Your task to perform on an android device: Check the weather Image 0: 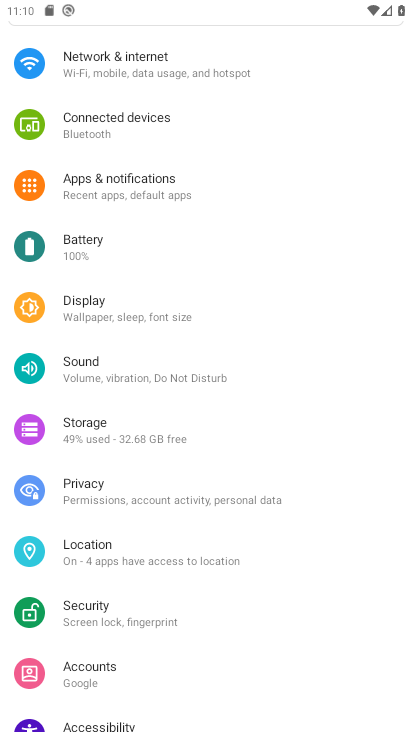
Step 0: press home button
Your task to perform on an android device: Check the weather Image 1: 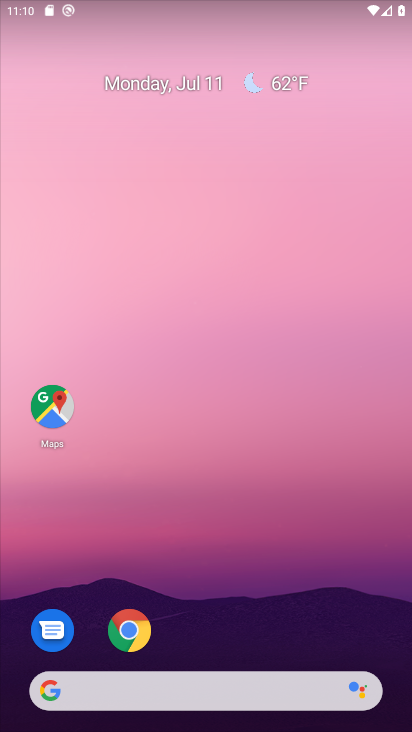
Step 1: click (237, 695)
Your task to perform on an android device: Check the weather Image 2: 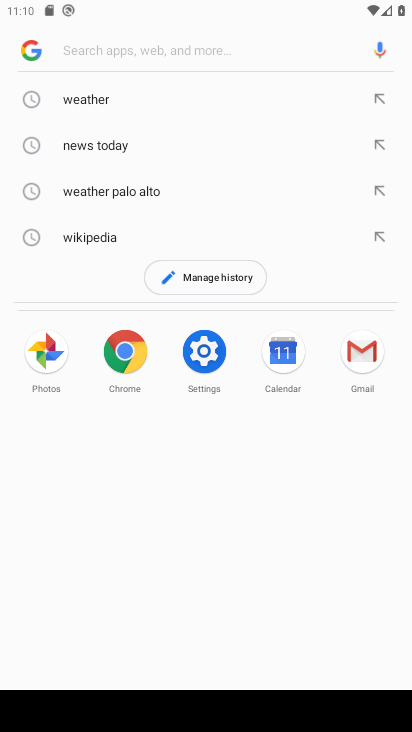
Step 2: click (94, 96)
Your task to perform on an android device: Check the weather Image 3: 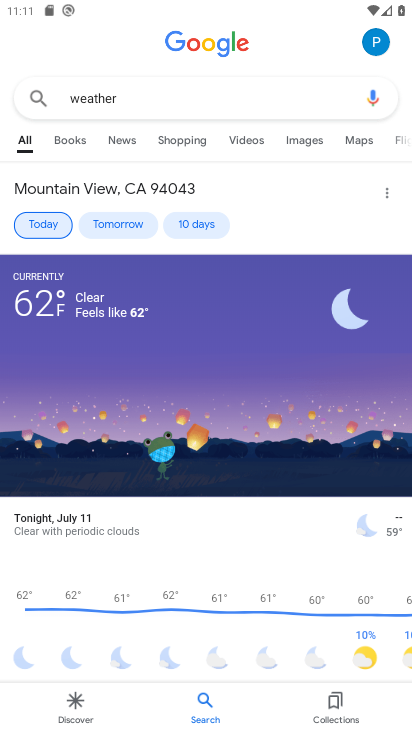
Step 3: click (48, 222)
Your task to perform on an android device: Check the weather Image 4: 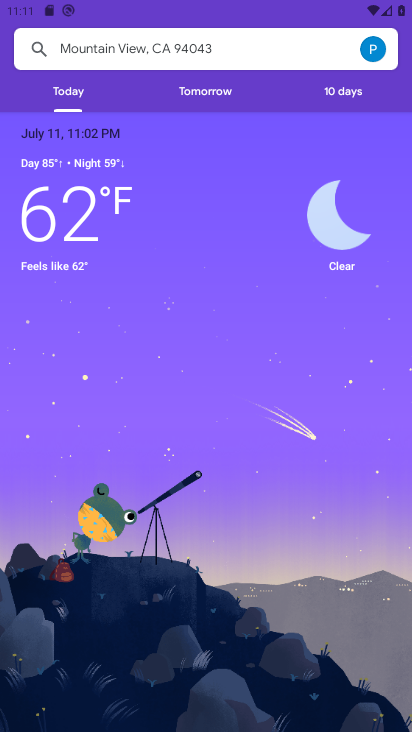
Step 4: task complete